Your task to perform on an android device: Do I have any events this weekend? Image 0: 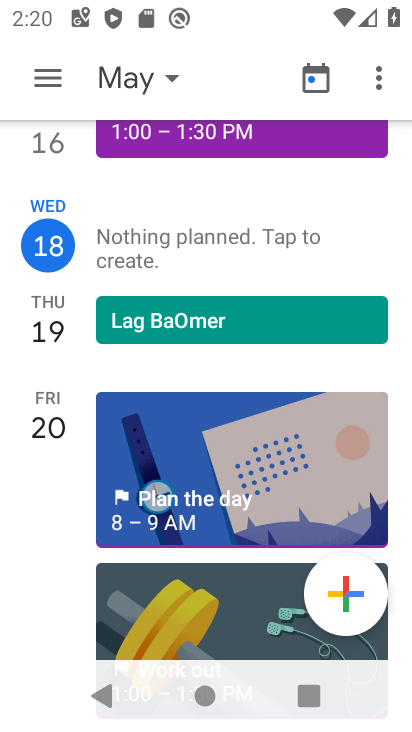
Step 0: click (167, 76)
Your task to perform on an android device: Do I have any events this weekend? Image 1: 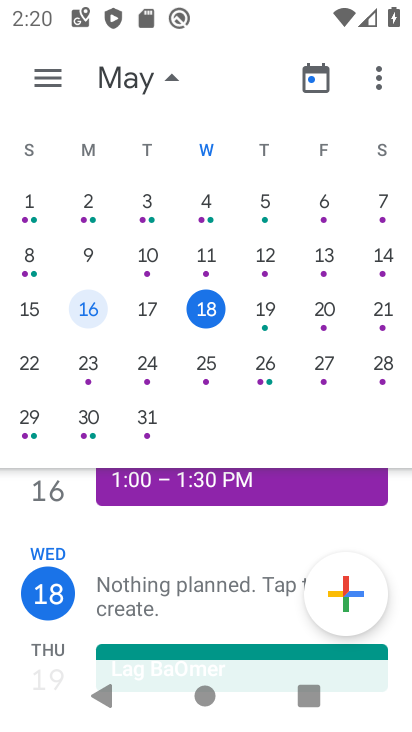
Step 1: click (372, 301)
Your task to perform on an android device: Do I have any events this weekend? Image 2: 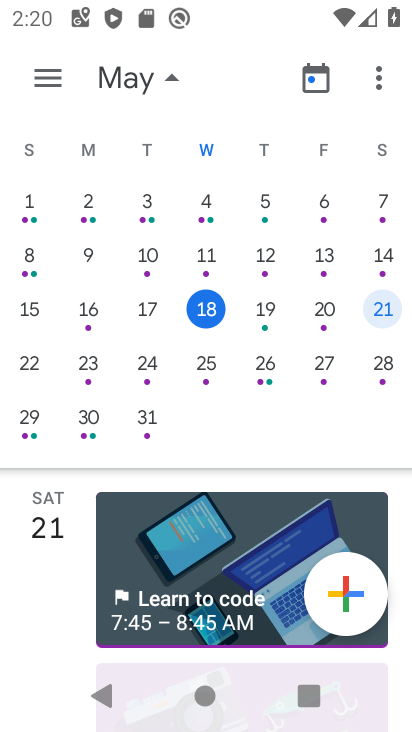
Step 2: task complete